Your task to perform on an android device: allow cookies in the chrome app Image 0: 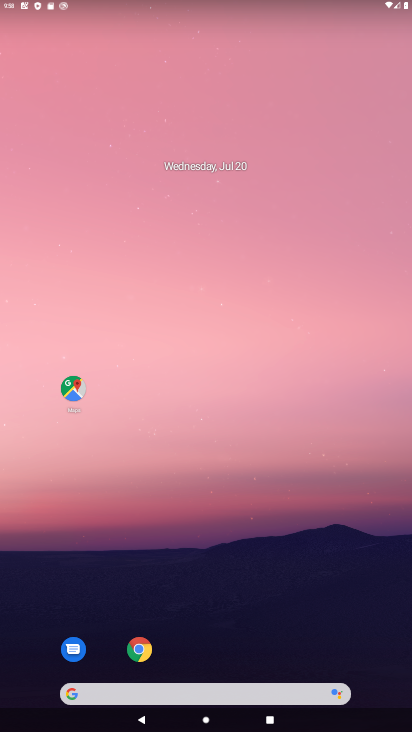
Step 0: click (158, 652)
Your task to perform on an android device: allow cookies in the chrome app Image 1: 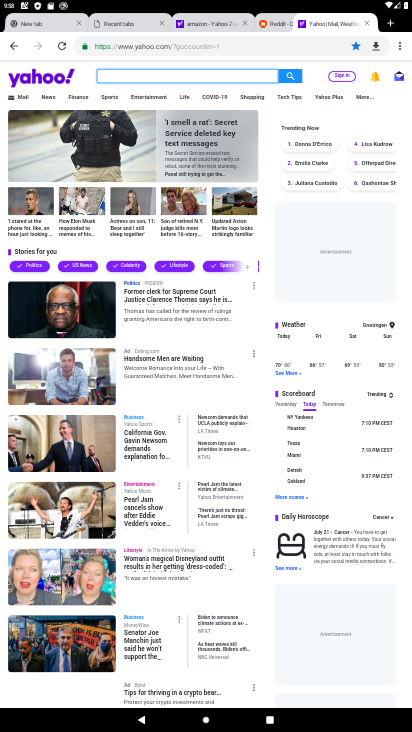
Step 1: click (401, 53)
Your task to perform on an android device: allow cookies in the chrome app Image 2: 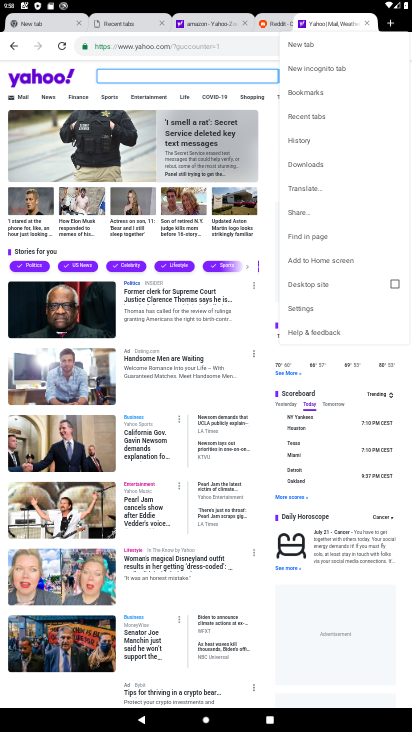
Step 2: click (308, 318)
Your task to perform on an android device: allow cookies in the chrome app Image 3: 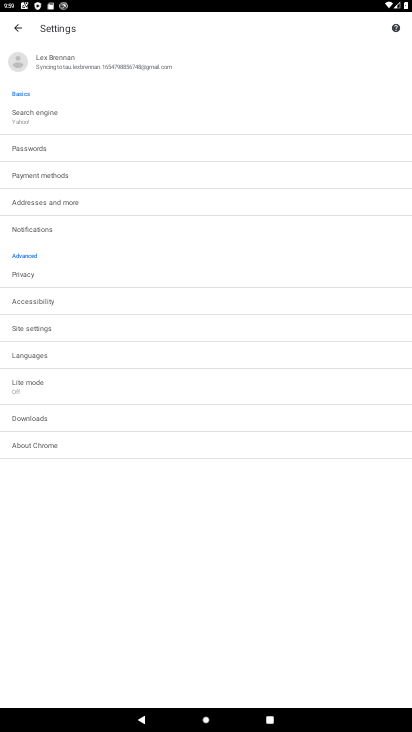
Step 3: click (142, 332)
Your task to perform on an android device: allow cookies in the chrome app Image 4: 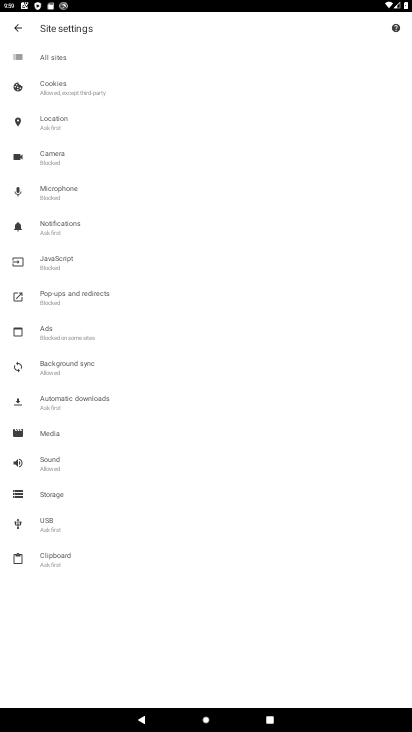
Step 4: task complete